Your task to perform on an android device: Go to display settings Image 0: 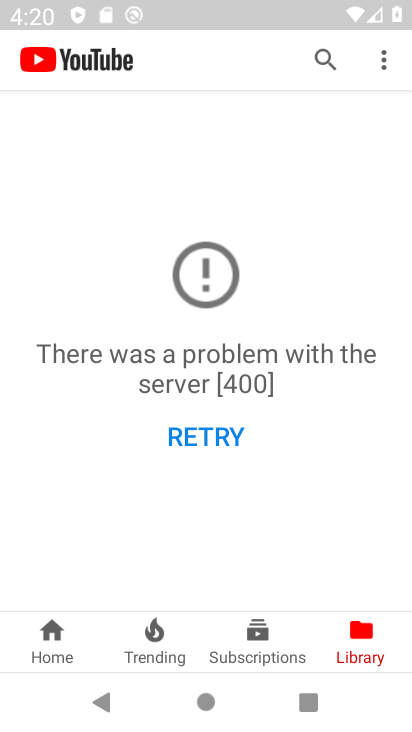
Step 0: press home button
Your task to perform on an android device: Go to display settings Image 1: 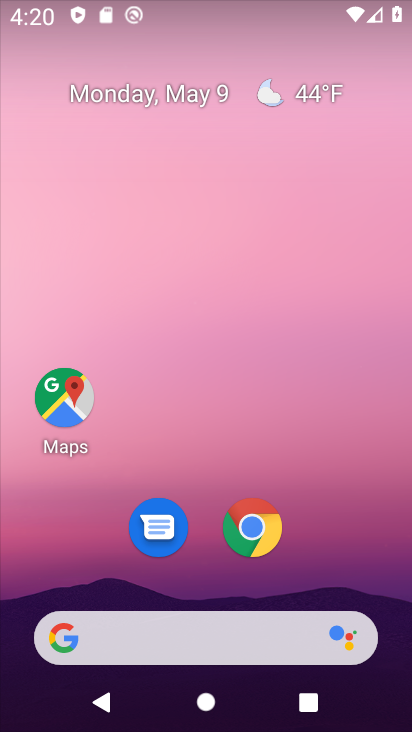
Step 1: drag from (190, 567) to (207, 53)
Your task to perform on an android device: Go to display settings Image 2: 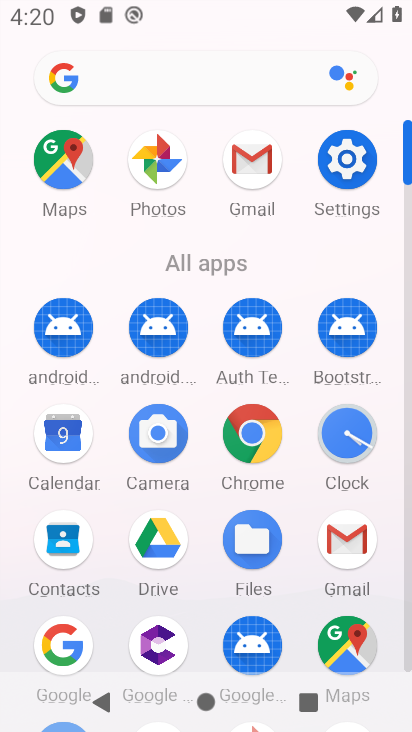
Step 2: click (341, 170)
Your task to perform on an android device: Go to display settings Image 3: 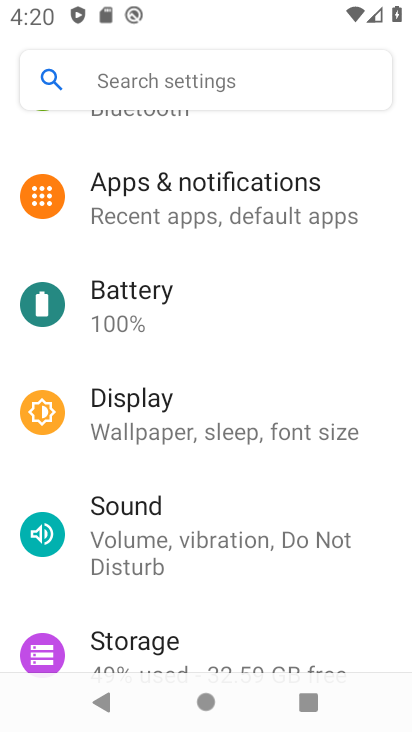
Step 3: click (234, 451)
Your task to perform on an android device: Go to display settings Image 4: 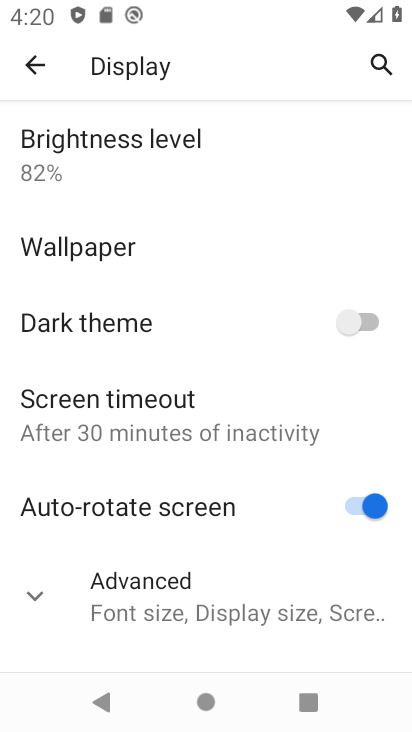
Step 4: task complete